Your task to perform on an android device: empty trash in the gmail app Image 0: 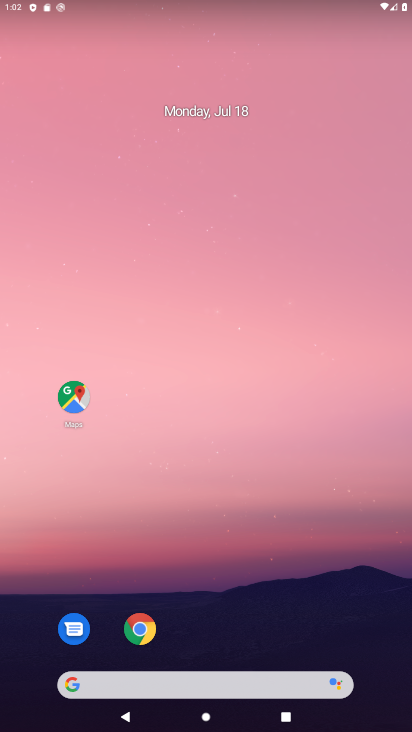
Step 0: click (246, 505)
Your task to perform on an android device: empty trash in the gmail app Image 1: 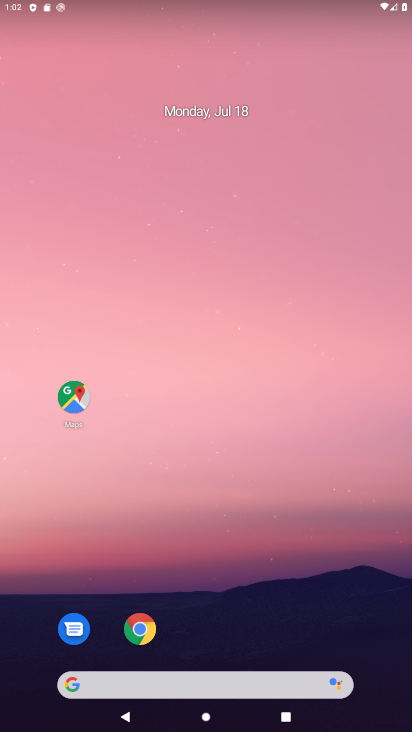
Step 1: click (268, 51)
Your task to perform on an android device: empty trash in the gmail app Image 2: 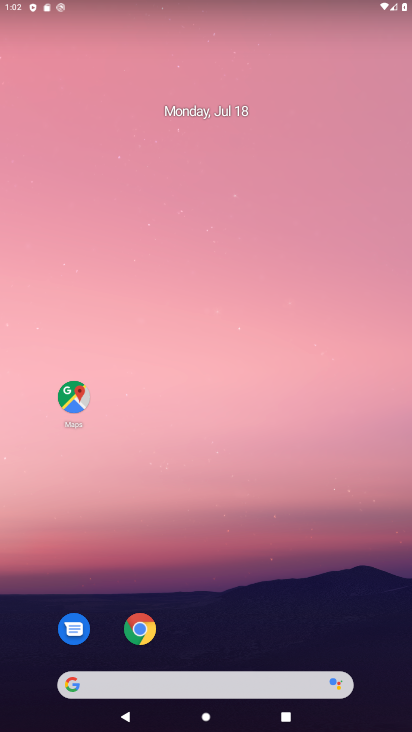
Step 2: drag from (193, 649) to (305, 227)
Your task to perform on an android device: empty trash in the gmail app Image 3: 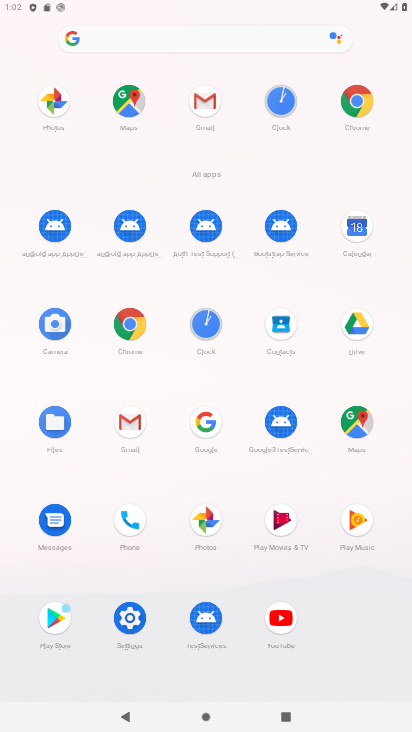
Step 3: click (201, 109)
Your task to perform on an android device: empty trash in the gmail app Image 4: 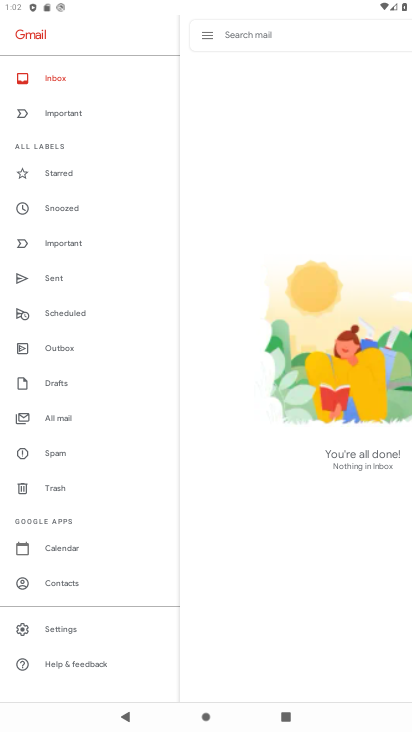
Step 4: click (51, 482)
Your task to perform on an android device: empty trash in the gmail app Image 5: 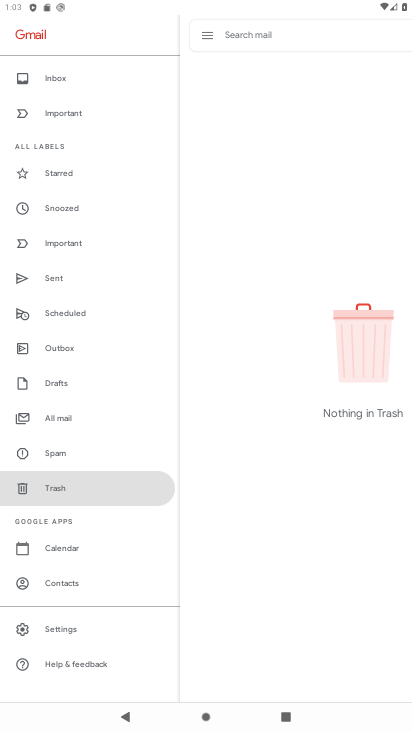
Step 5: task complete